Your task to perform on an android device: Check the news Image 0: 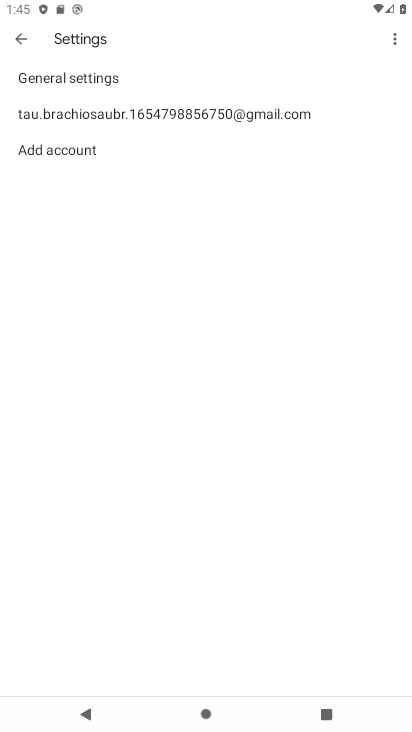
Step 0: press home button
Your task to perform on an android device: Check the news Image 1: 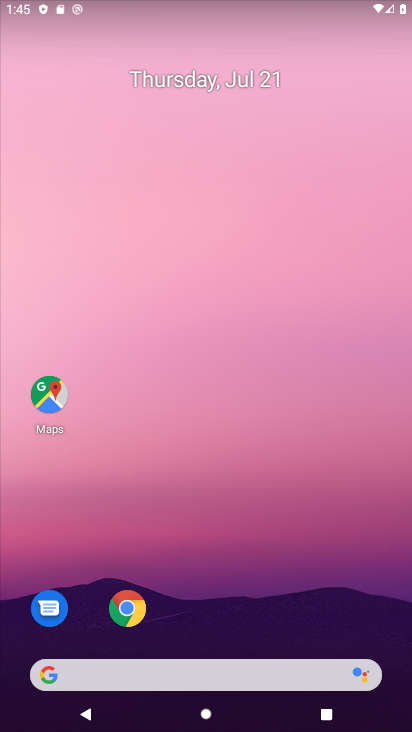
Step 1: drag from (14, 274) to (400, 253)
Your task to perform on an android device: Check the news Image 2: 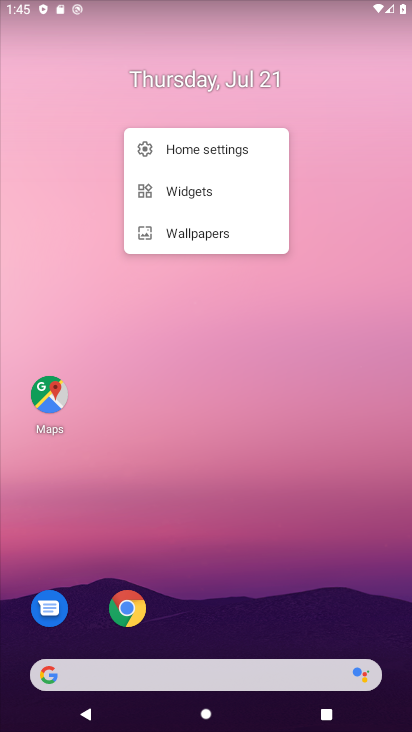
Step 2: click (187, 282)
Your task to perform on an android device: Check the news Image 3: 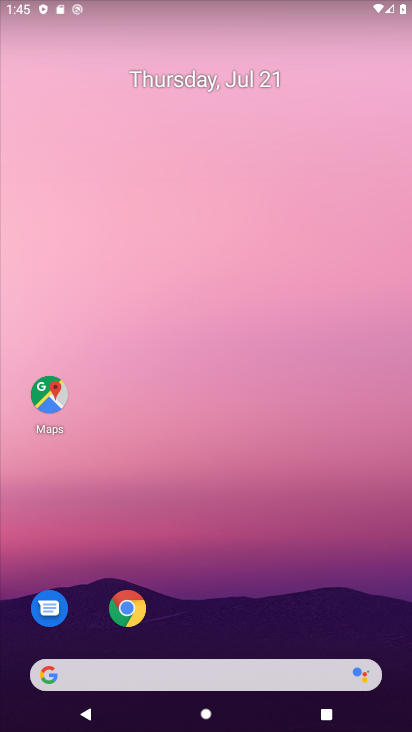
Step 3: drag from (7, 276) to (383, 376)
Your task to perform on an android device: Check the news Image 4: 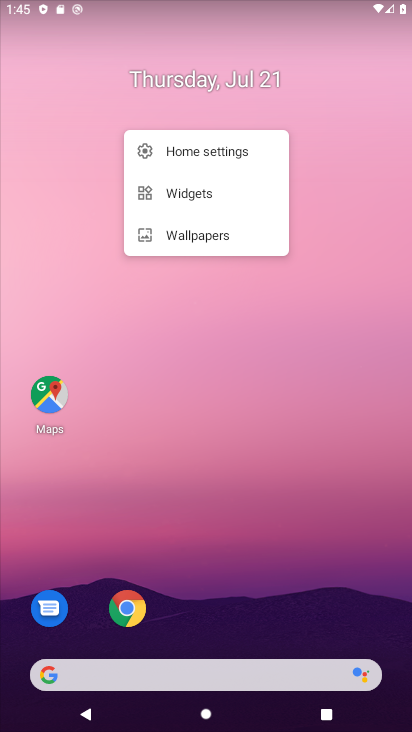
Step 4: click (364, 369)
Your task to perform on an android device: Check the news Image 5: 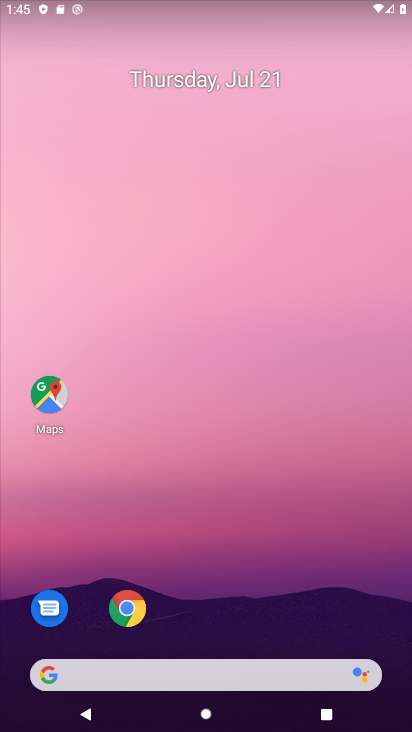
Step 5: drag from (33, 251) to (340, 336)
Your task to perform on an android device: Check the news Image 6: 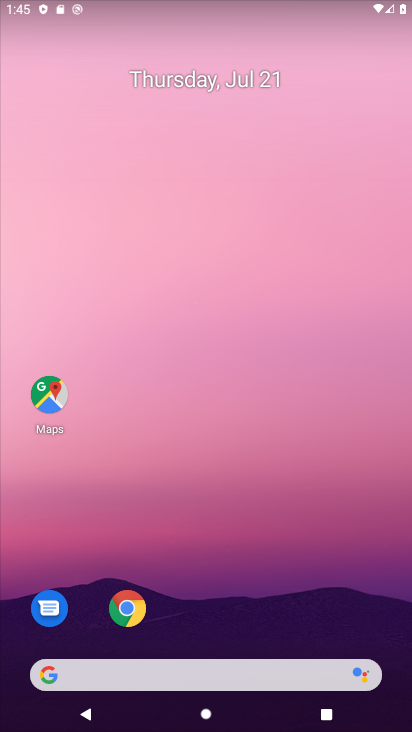
Step 6: drag from (7, 247) to (355, 324)
Your task to perform on an android device: Check the news Image 7: 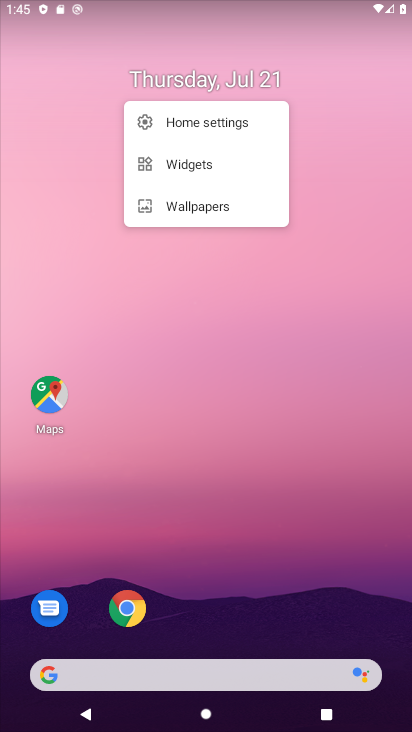
Step 7: click (355, 324)
Your task to perform on an android device: Check the news Image 8: 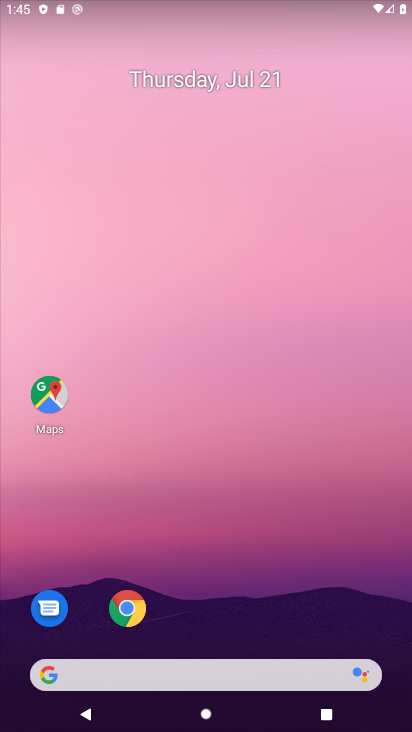
Step 8: drag from (12, 260) to (345, 283)
Your task to perform on an android device: Check the news Image 9: 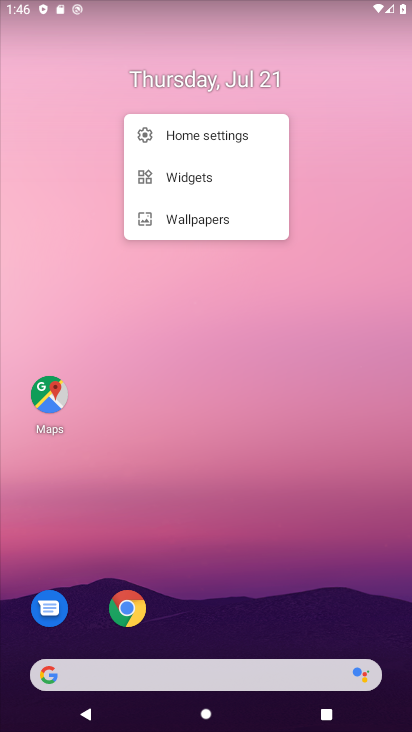
Step 9: click (345, 283)
Your task to perform on an android device: Check the news Image 10: 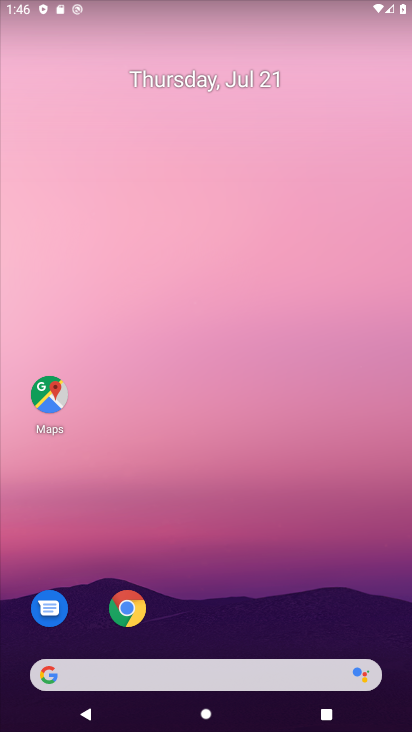
Step 10: task complete